Your task to perform on an android device: move a message to another label in the gmail app Image 0: 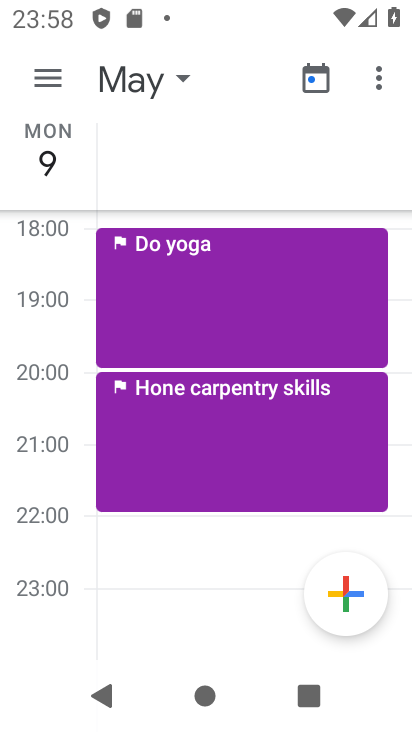
Step 0: press home button
Your task to perform on an android device: move a message to another label in the gmail app Image 1: 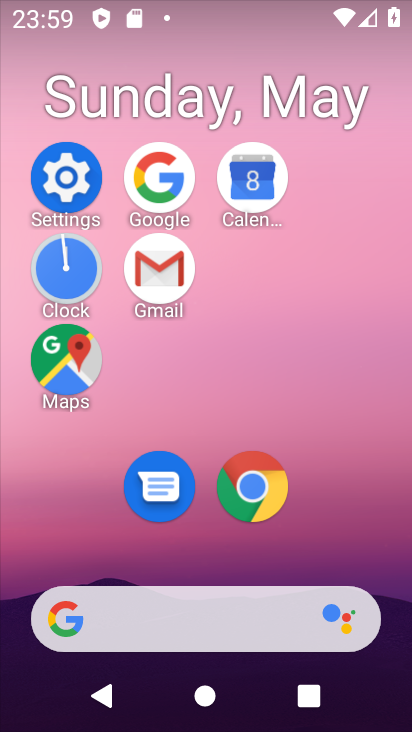
Step 1: click (150, 276)
Your task to perform on an android device: move a message to another label in the gmail app Image 2: 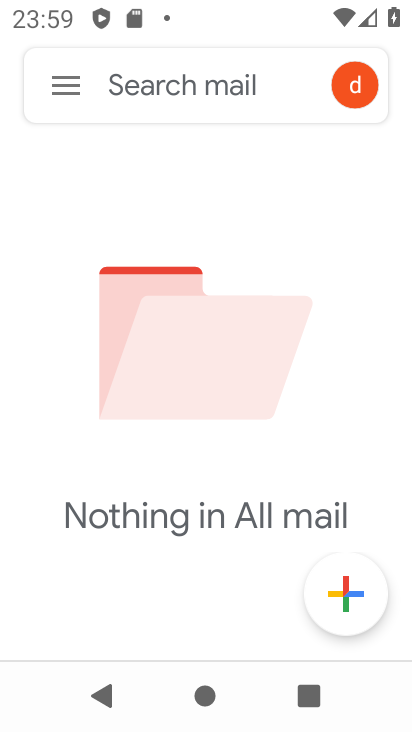
Step 2: click (60, 86)
Your task to perform on an android device: move a message to another label in the gmail app Image 3: 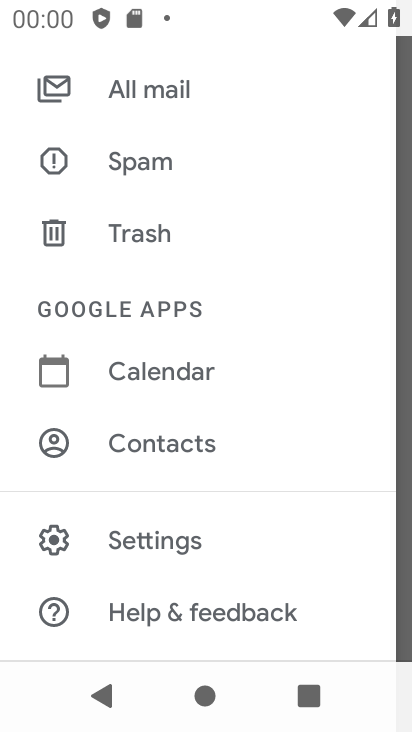
Step 3: click (190, 81)
Your task to perform on an android device: move a message to another label in the gmail app Image 4: 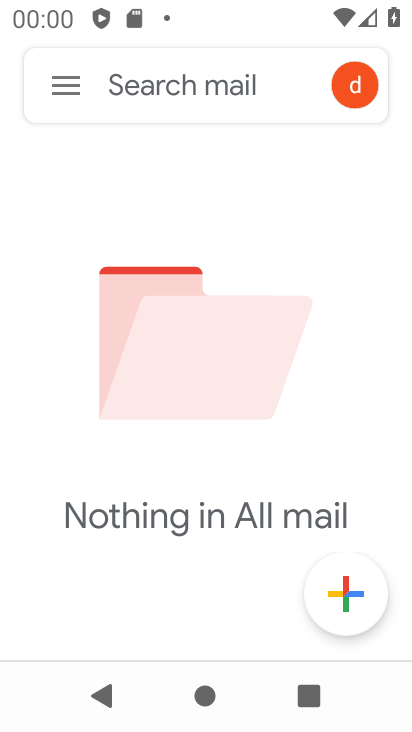
Step 4: task complete